Your task to perform on an android device: Open Amazon Image 0: 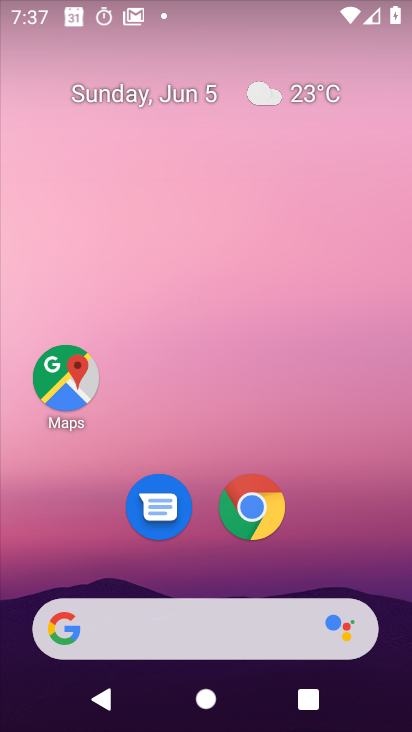
Step 0: drag from (246, 659) to (178, 67)
Your task to perform on an android device: Open Amazon Image 1: 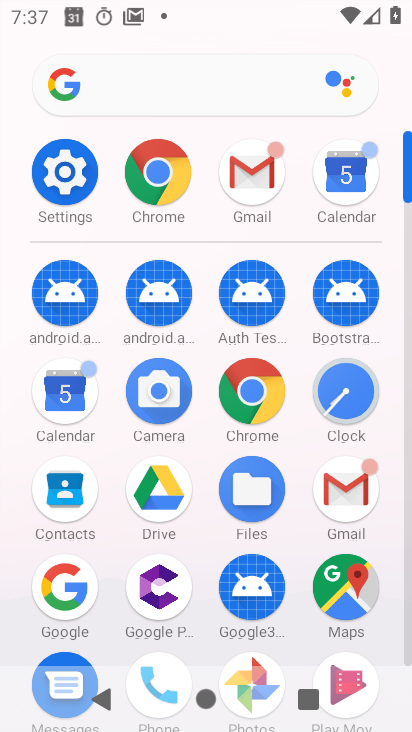
Step 1: click (177, 144)
Your task to perform on an android device: Open Amazon Image 2: 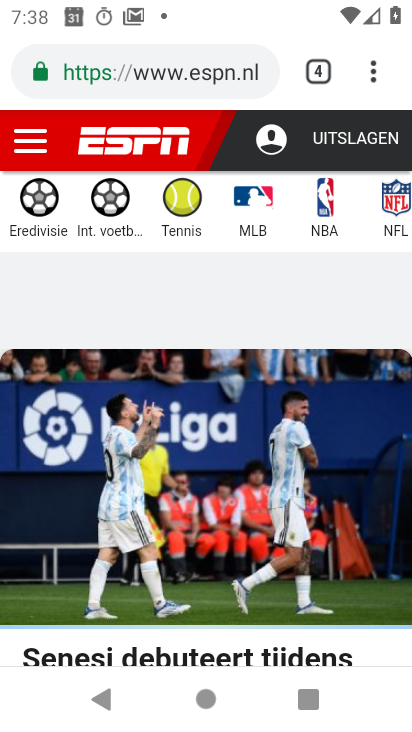
Step 2: click (323, 68)
Your task to perform on an android device: Open Amazon Image 3: 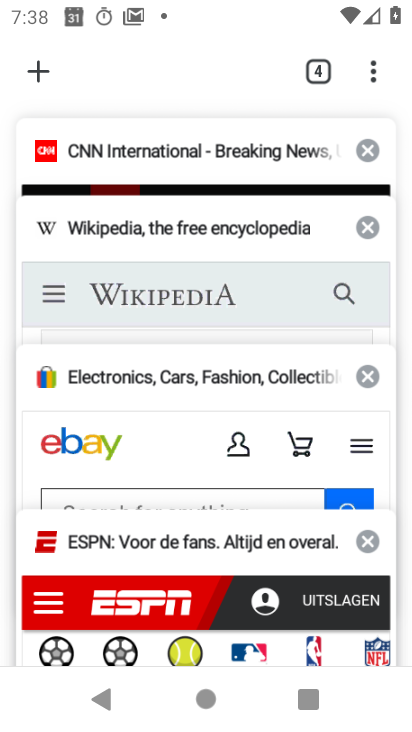
Step 3: click (20, 66)
Your task to perform on an android device: Open Amazon Image 4: 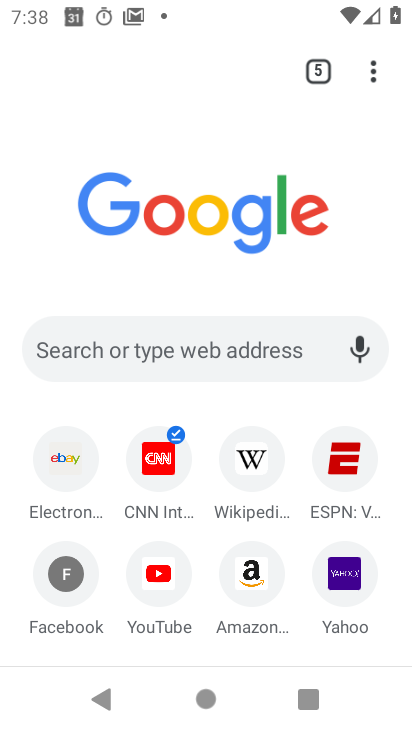
Step 4: click (240, 562)
Your task to perform on an android device: Open Amazon Image 5: 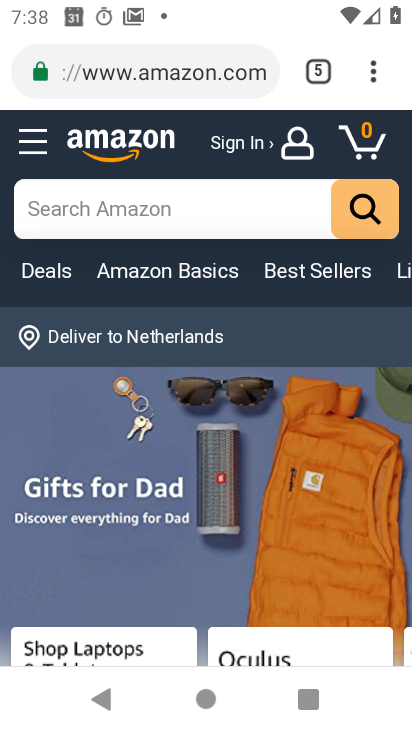
Step 5: task complete